Your task to perform on an android device: Clear the shopping cart on amazon. Image 0: 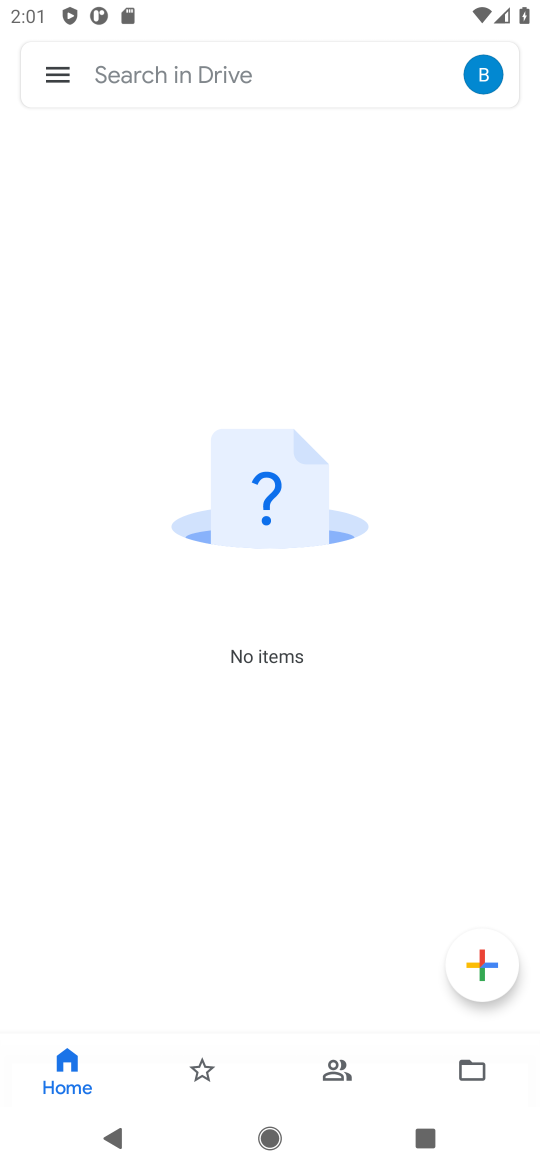
Step 0: press home button
Your task to perform on an android device: Clear the shopping cart on amazon. Image 1: 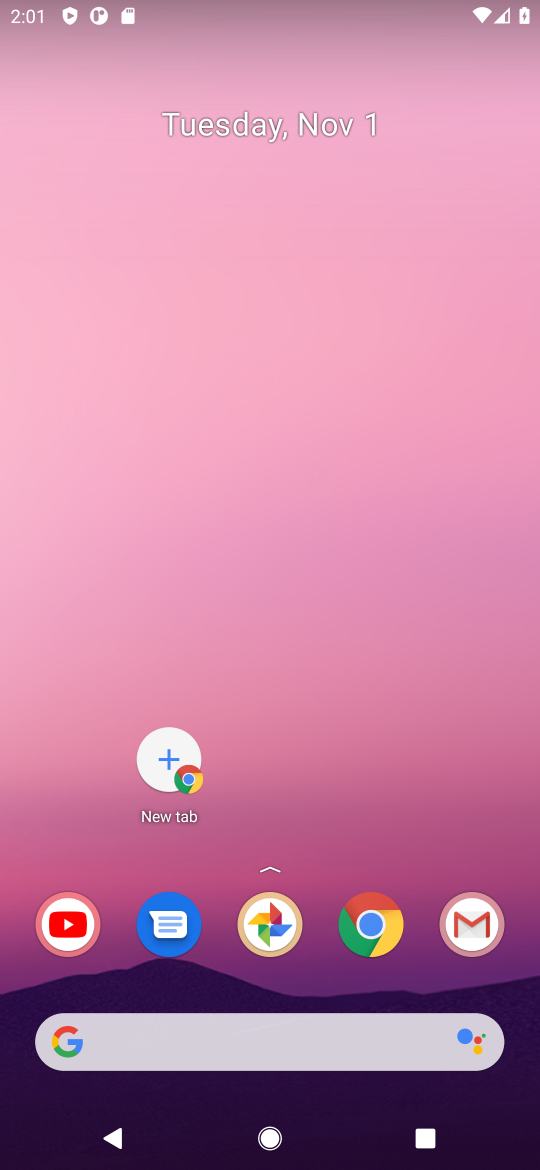
Step 1: click (378, 917)
Your task to perform on an android device: Clear the shopping cart on amazon. Image 2: 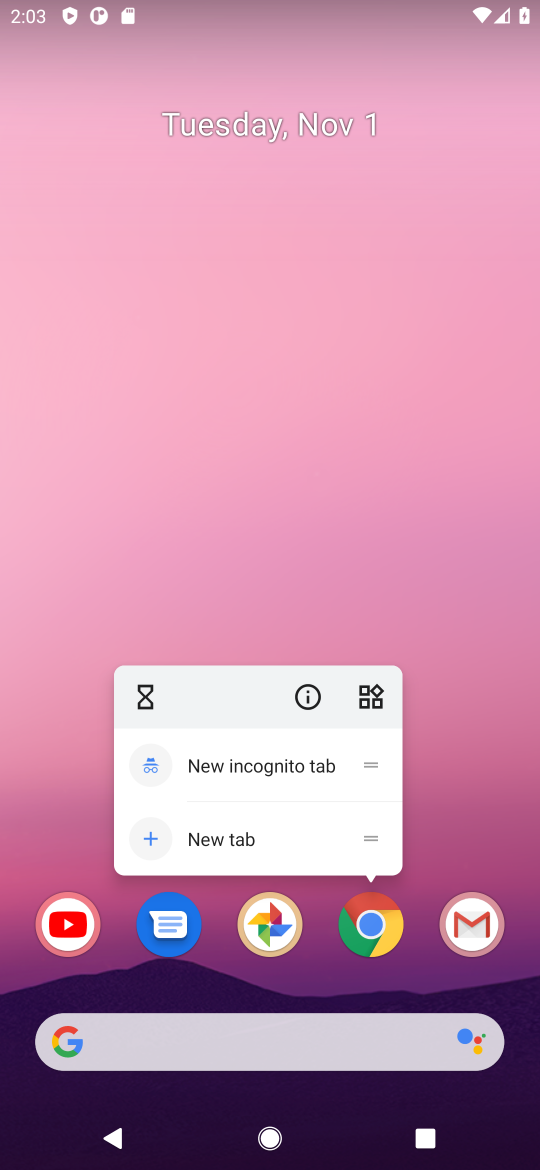
Step 2: click (366, 915)
Your task to perform on an android device: Clear the shopping cart on amazon. Image 3: 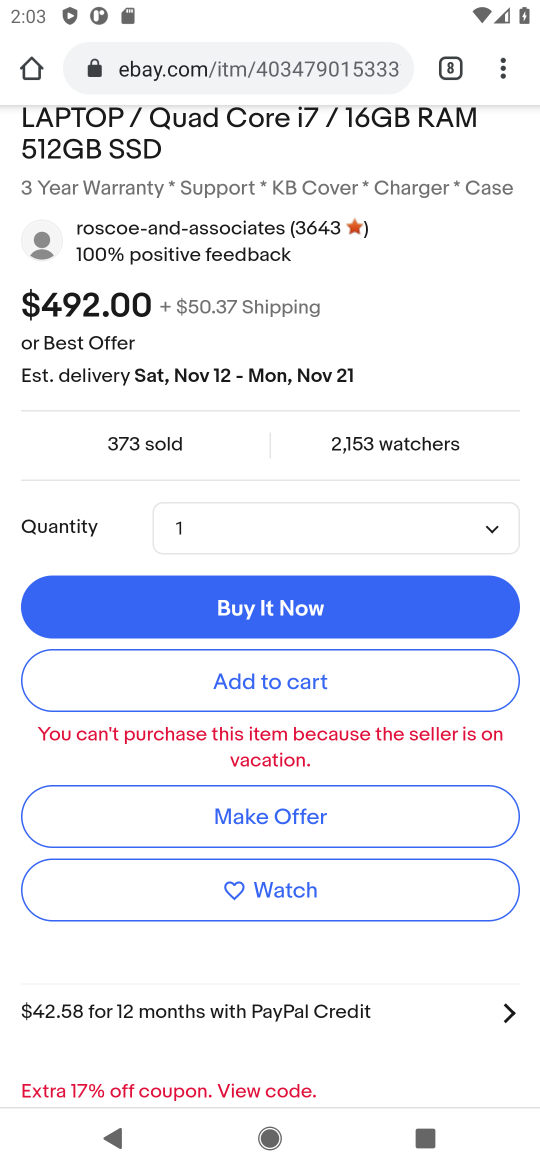
Step 3: click (225, 58)
Your task to perform on an android device: Clear the shopping cart on amazon. Image 4: 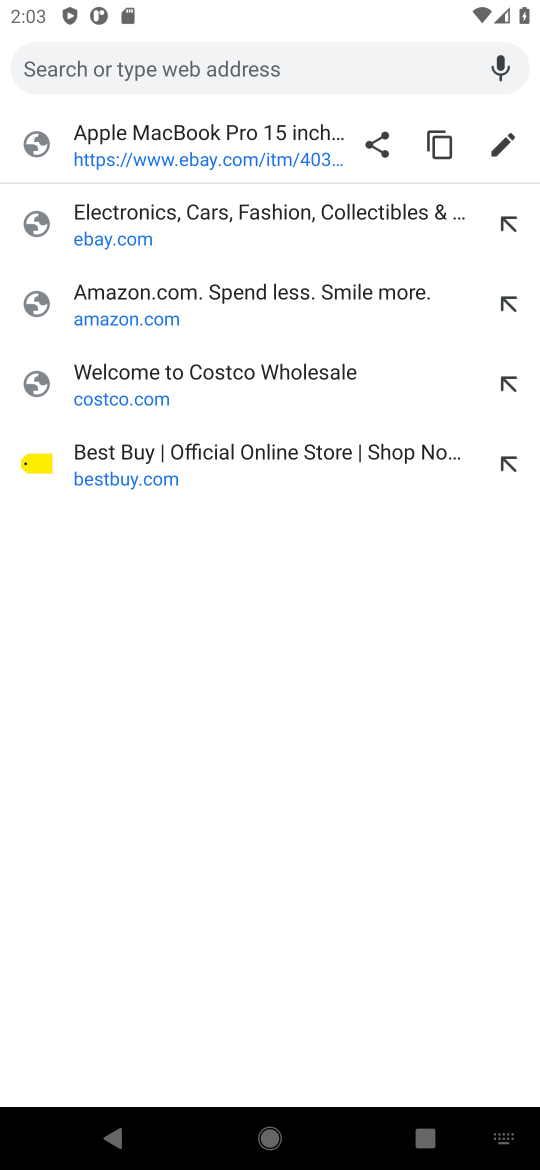
Step 4: click (155, 315)
Your task to perform on an android device: Clear the shopping cart on amazon. Image 5: 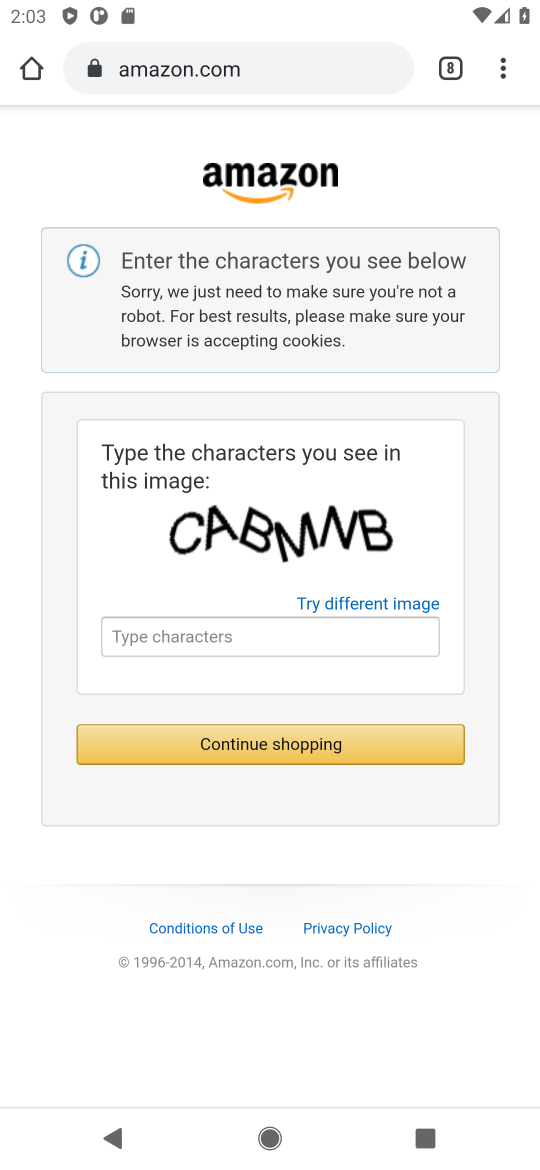
Step 5: press home button
Your task to perform on an android device: Clear the shopping cart on amazon. Image 6: 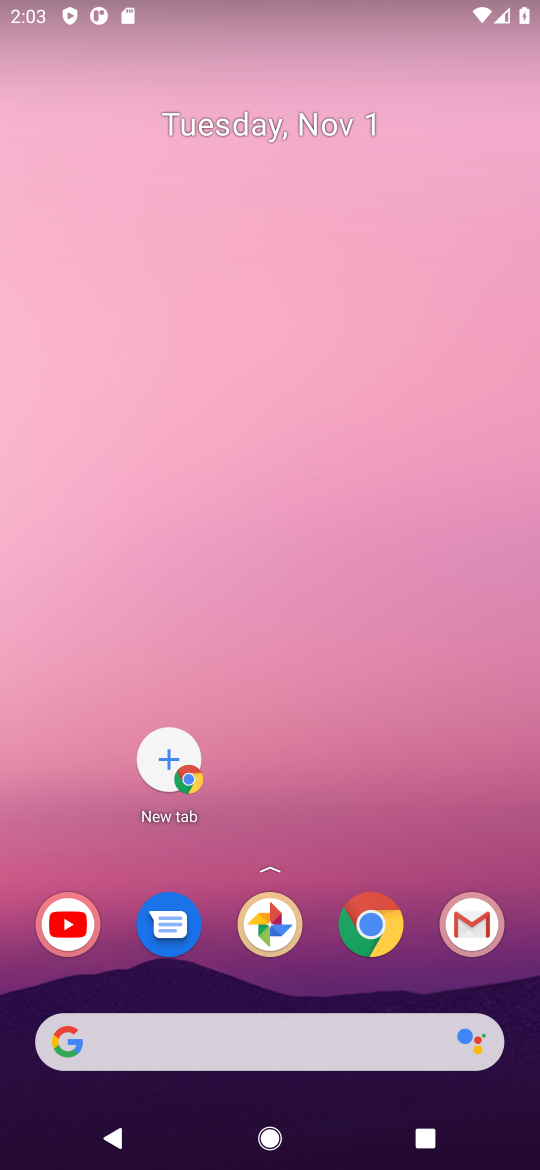
Step 6: click (371, 918)
Your task to perform on an android device: Clear the shopping cart on amazon. Image 7: 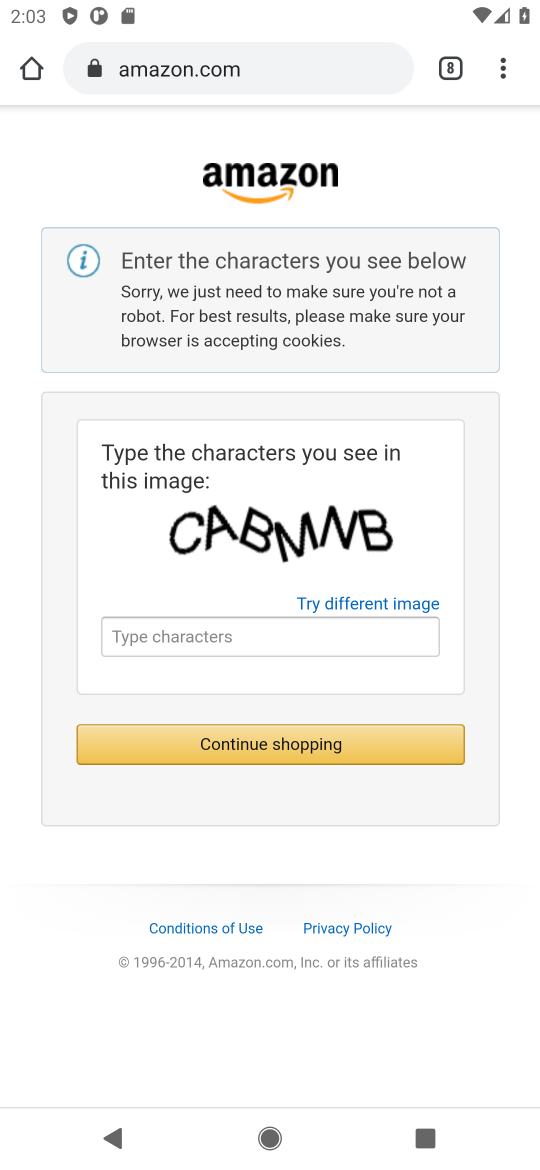
Step 7: click (213, 69)
Your task to perform on an android device: Clear the shopping cart on amazon. Image 8: 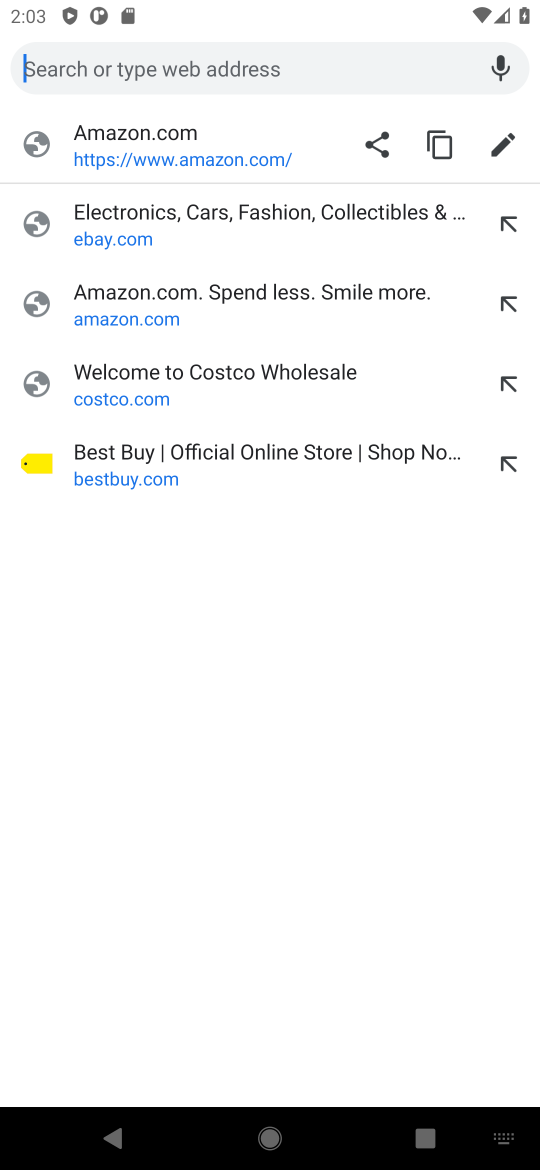
Step 8: click (161, 308)
Your task to perform on an android device: Clear the shopping cart on amazon. Image 9: 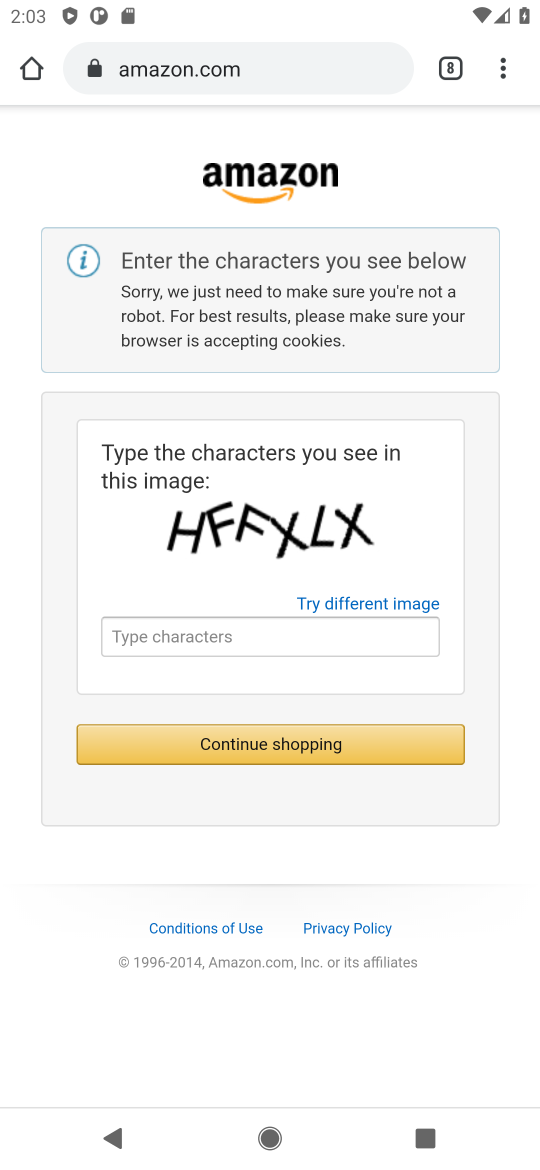
Step 9: click (192, 633)
Your task to perform on an android device: Clear the shopping cart on amazon. Image 10: 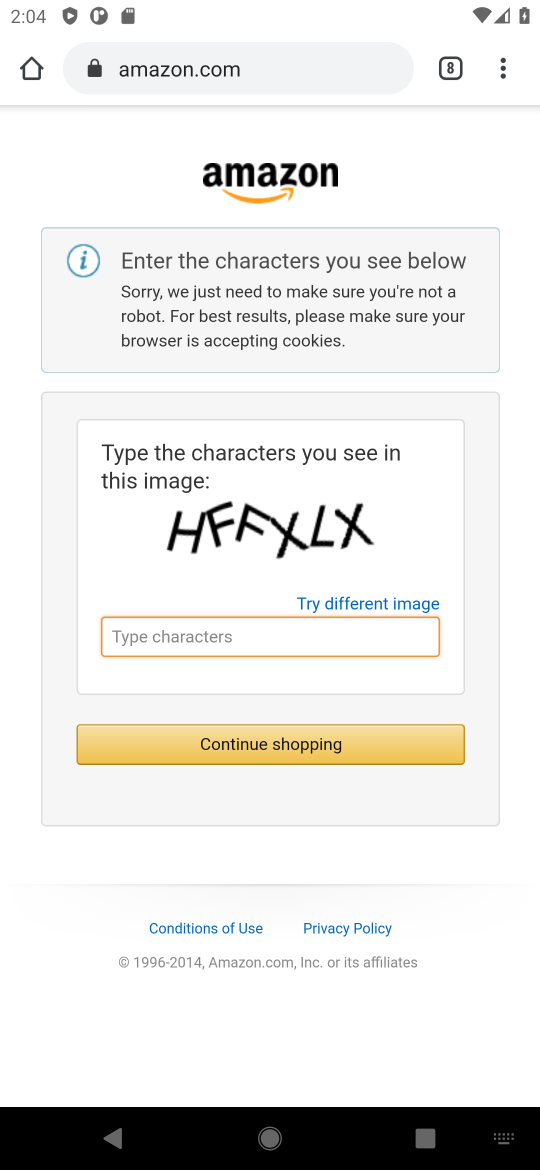
Step 10: type "HFFXLX"
Your task to perform on an android device: Clear the shopping cart on amazon. Image 11: 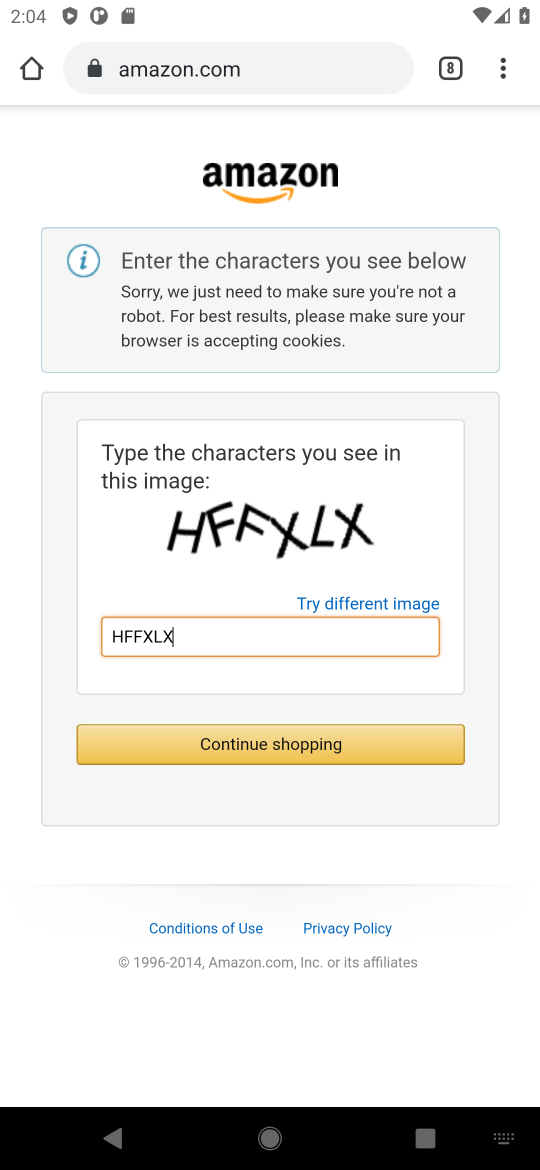
Step 11: click (284, 738)
Your task to perform on an android device: Clear the shopping cart on amazon. Image 12: 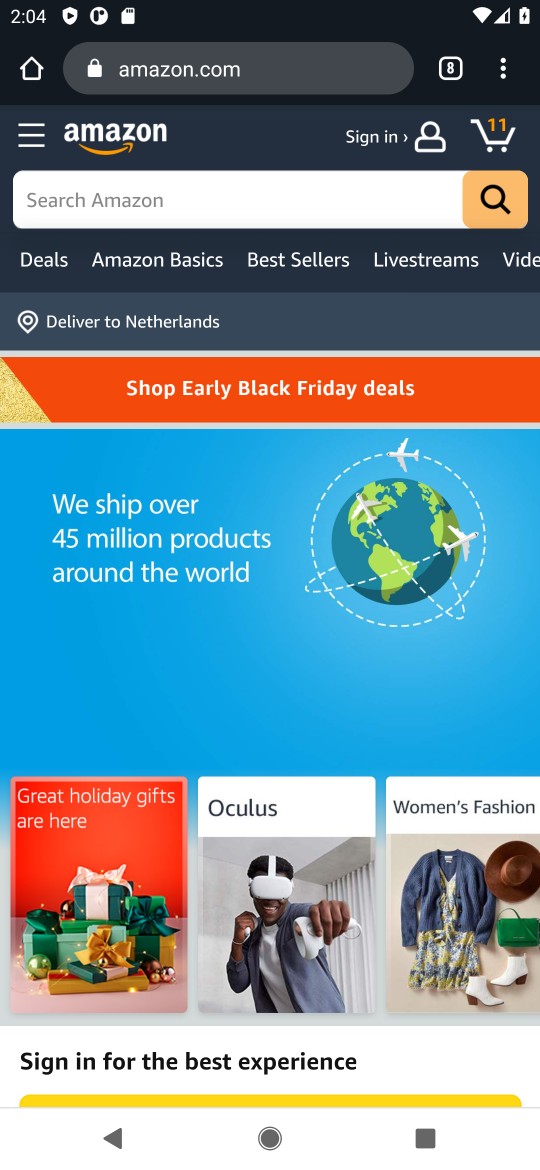
Step 12: click (506, 149)
Your task to perform on an android device: Clear the shopping cart on amazon. Image 13: 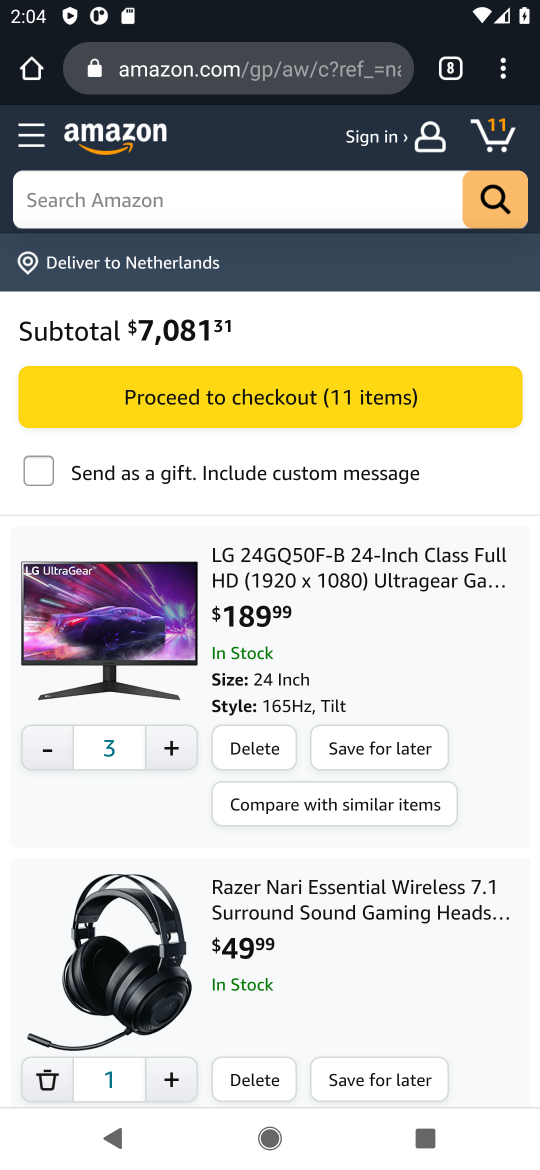
Step 13: drag from (109, 810) to (160, 739)
Your task to perform on an android device: Clear the shopping cart on amazon. Image 14: 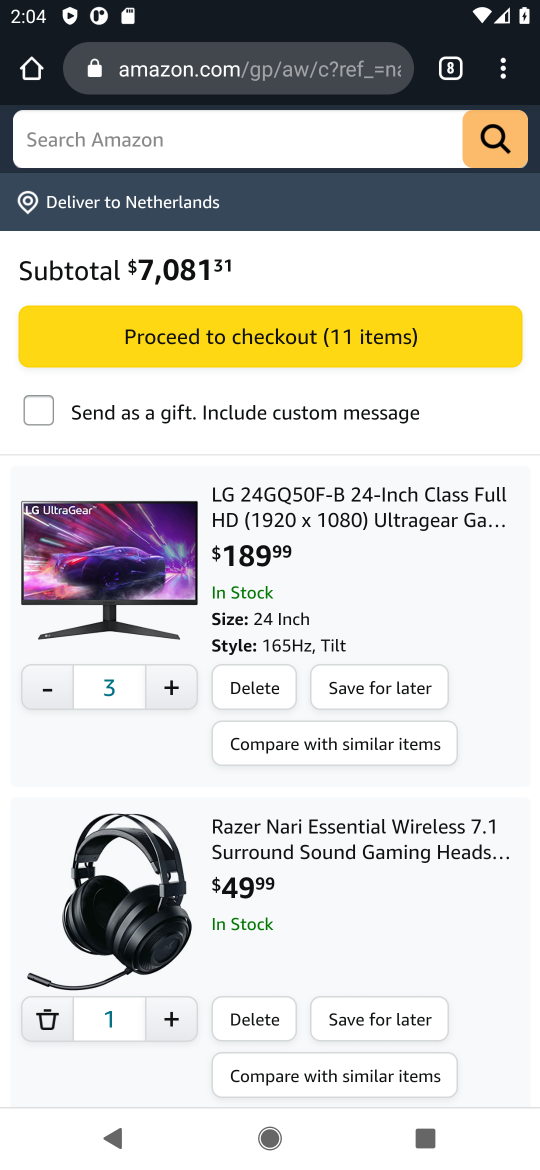
Step 14: click (267, 685)
Your task to perform on an android device: Clear the shopping cart on amazon. Image 15: 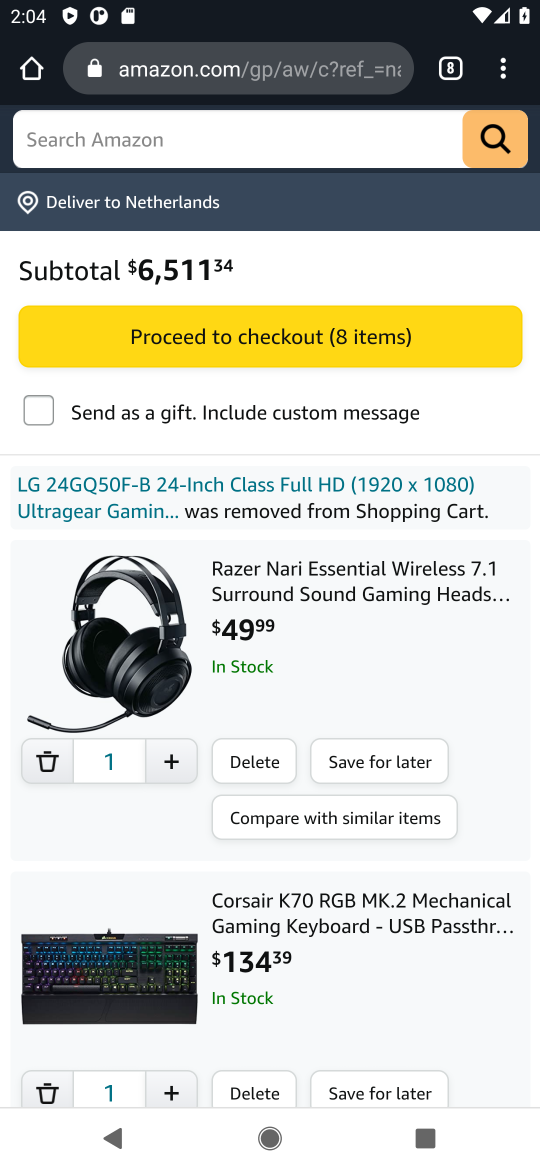
Step 15: click (232, 768)
Your task to perform on an android device: Clear the shopping cart on amazon. Image 16: 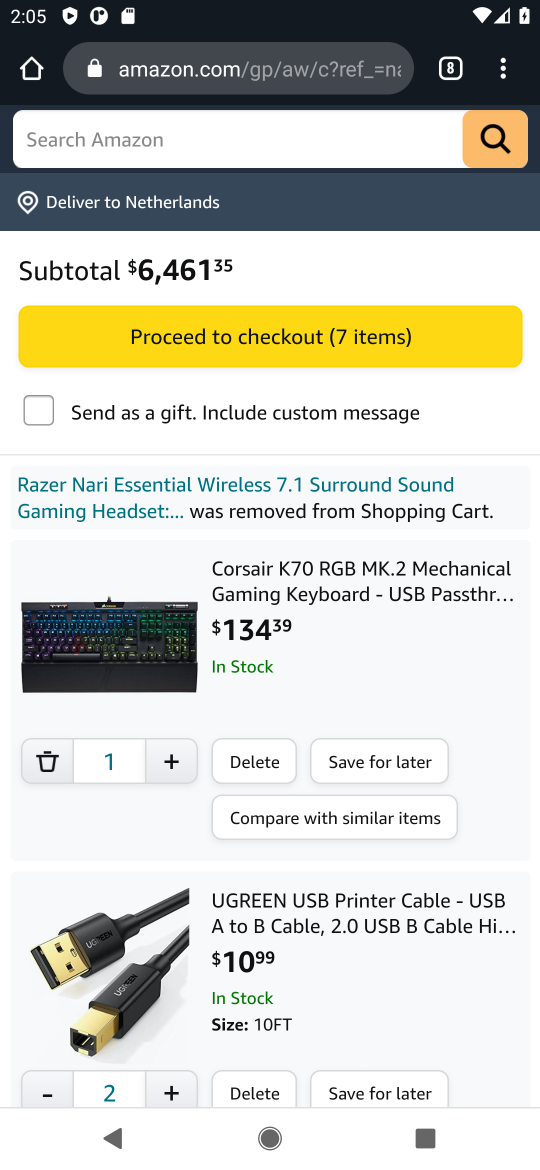
Step 16: click (241, 769)
Your task to perform on an android device: Clear the shopping cart on amazon. Image 17: 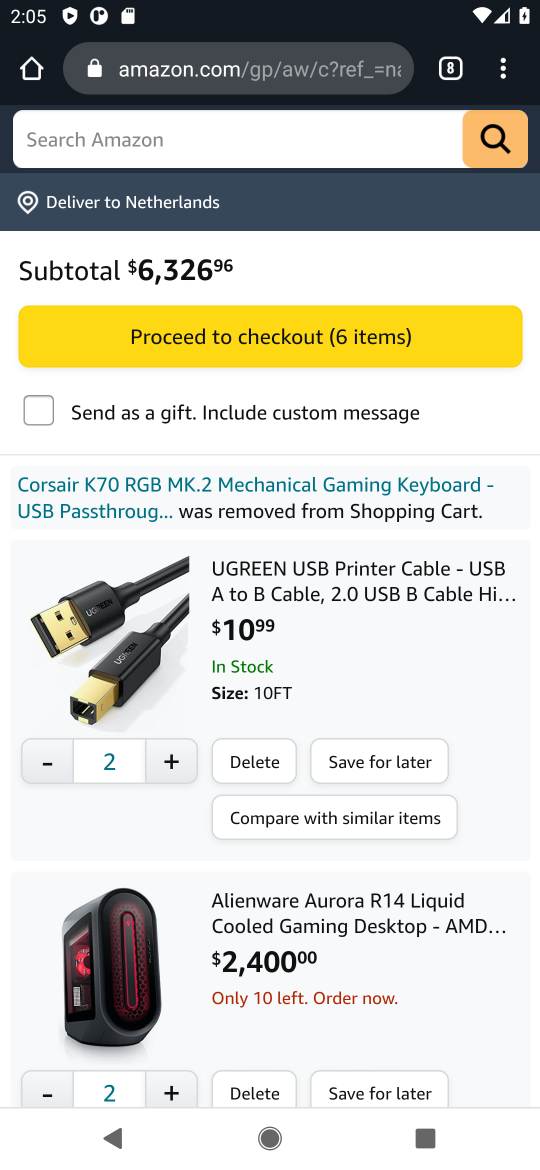
Step 17: click (241, 769)
Your task to perform on an android device: Clear the shopping cart on amazon. Image 18: 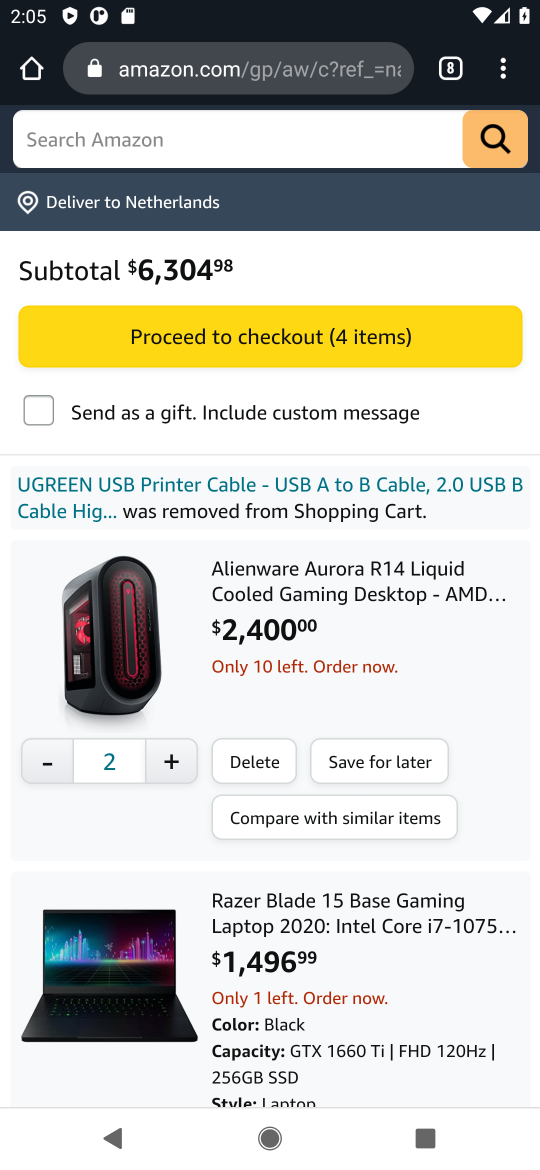
Step 18: click (241, 769)
Your task to perform on an android device: Clear the shopping cart on amazon. Image 19: 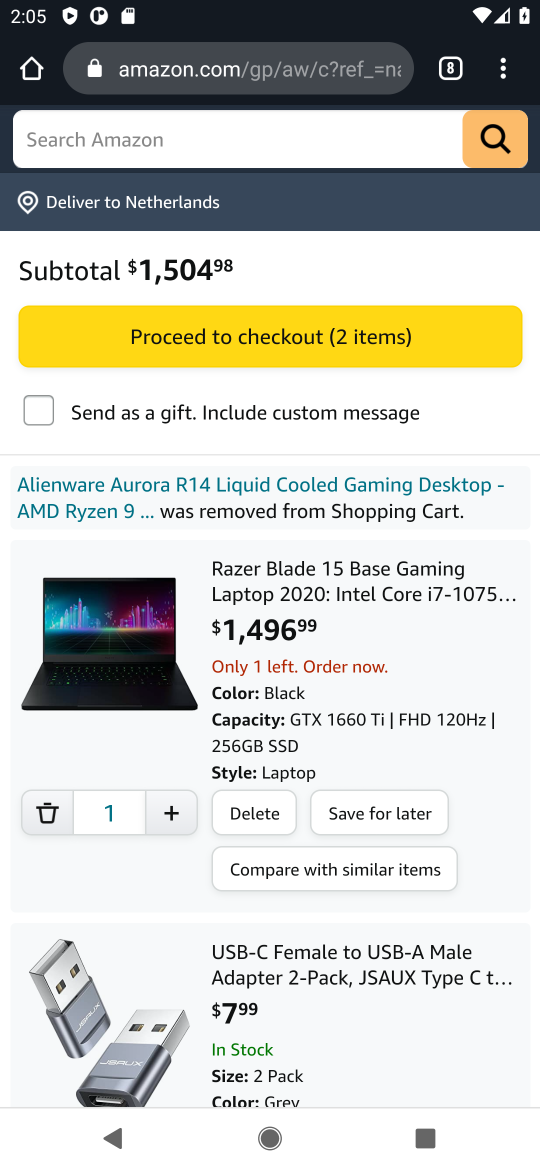
Step 19: click (243, 817)
Your task to perform on an android device: Clear the shopping cart on amazon. Image 20: 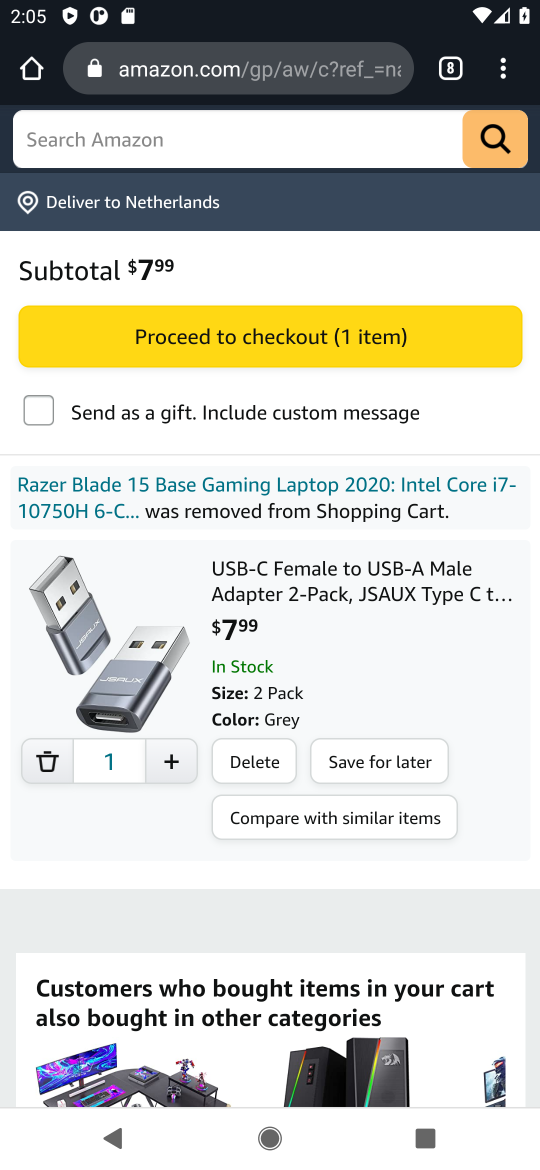
Step 20: click (250, 770)
Your task to perform on an android device: Clear the shopping cart on amazon. Image 21: 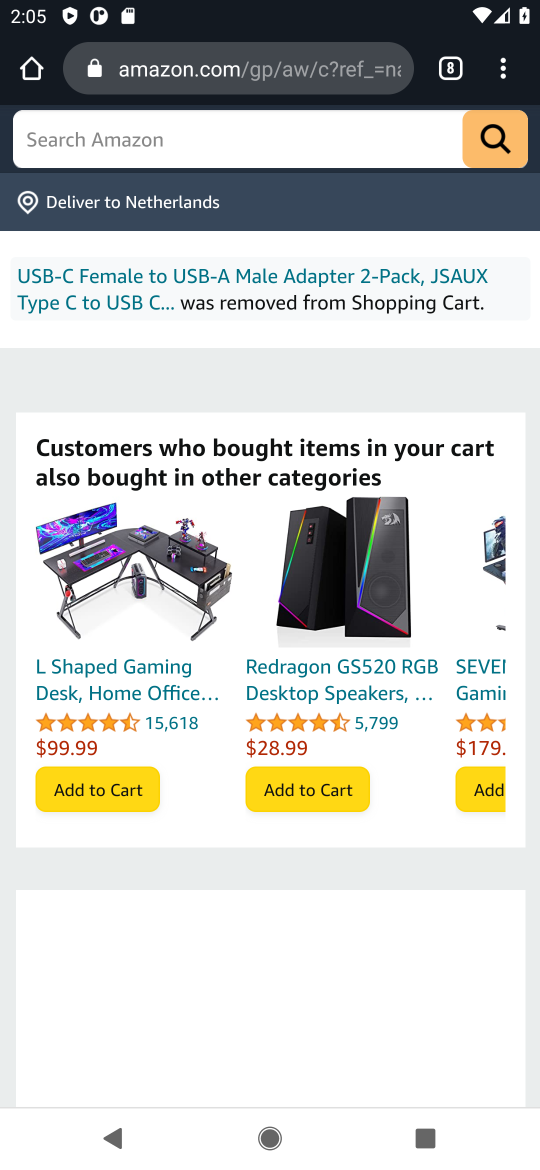
Step 21: task complete